Your task to perform on an android device: uninstall "Google Drive" Image 0: 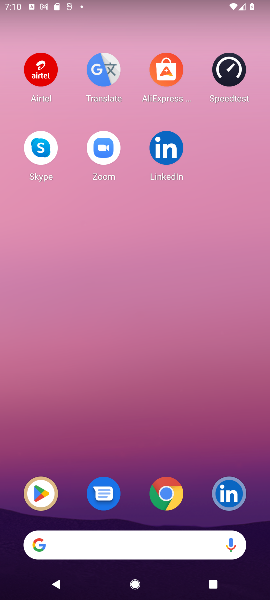
Step 0: drag from (155, 586) to (174, 42)
Your task to perform on an android device: uninstall "Google Drive" Image 1: 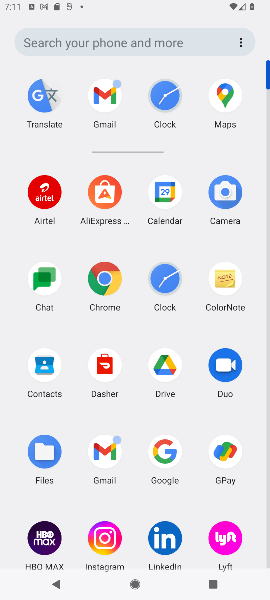
Step 1: drag from (140, 525) to (134, 280)
Your task to perform on an android device: uninstall "Google Drive" Image 2: 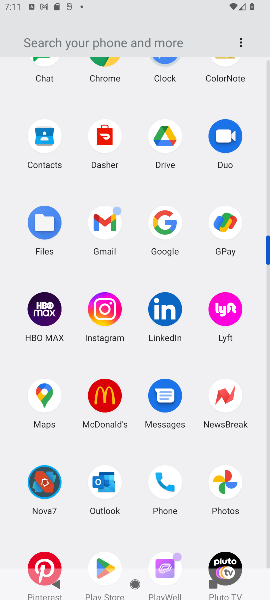
Step 2: drag from (131, 519) to (120, 263)
Your task to perform on an android device: uninstall "Google Drive" Image 3: 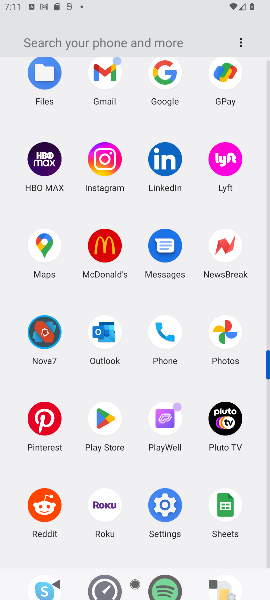
Step 3: click (101, 421)
Your task to perform on an android device: uninstall "Google Drive" Image 4: 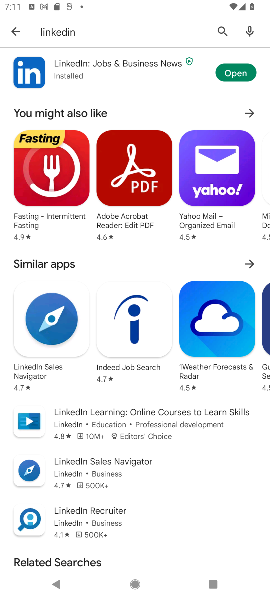
Step 4: click (219, 30)
Your task to perform on an android device: uninstall "Google Drive" Image 5: 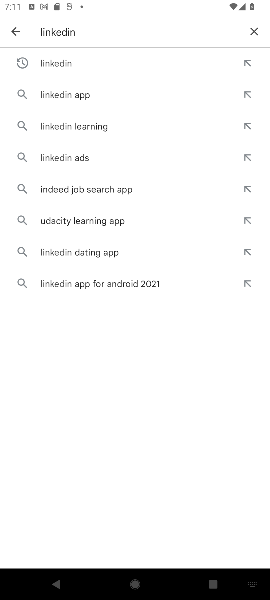
Step 5: click (251, 28)
Your task to perform on an android device: uninstall "Google Drive" Image 6: 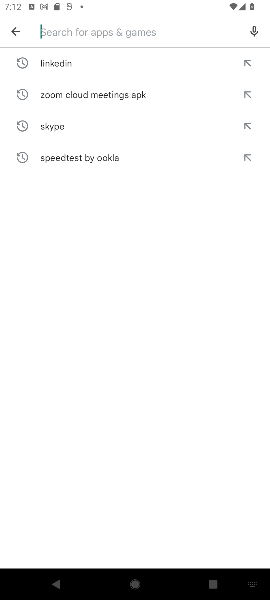
Step 6: type "Google Drive "
Your task to perform on an android device: uninstall "Google Drive" Image 7: 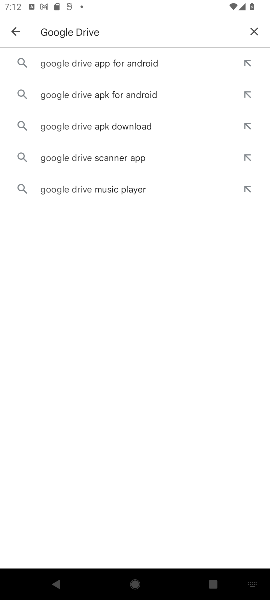
Step 7: click (133, 61)
Your task to perform on an android device: uninstall "Google Drive" Image 8: 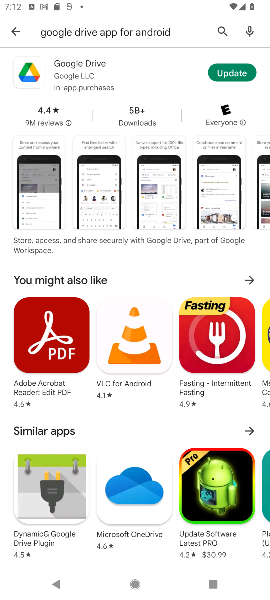
Step 8: click (93, 67)
Your task to perform on an android device: uninstall "Google Drive" Image 9: 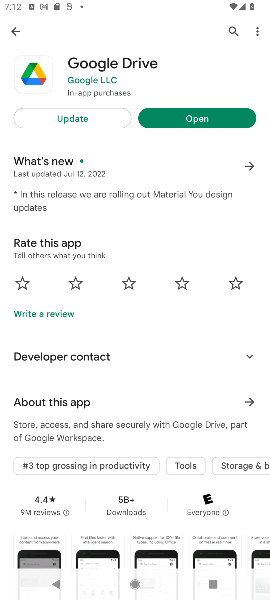
Step 9: task complete